Your task to perform on an android device: Open settings on Google Maps Image 0: 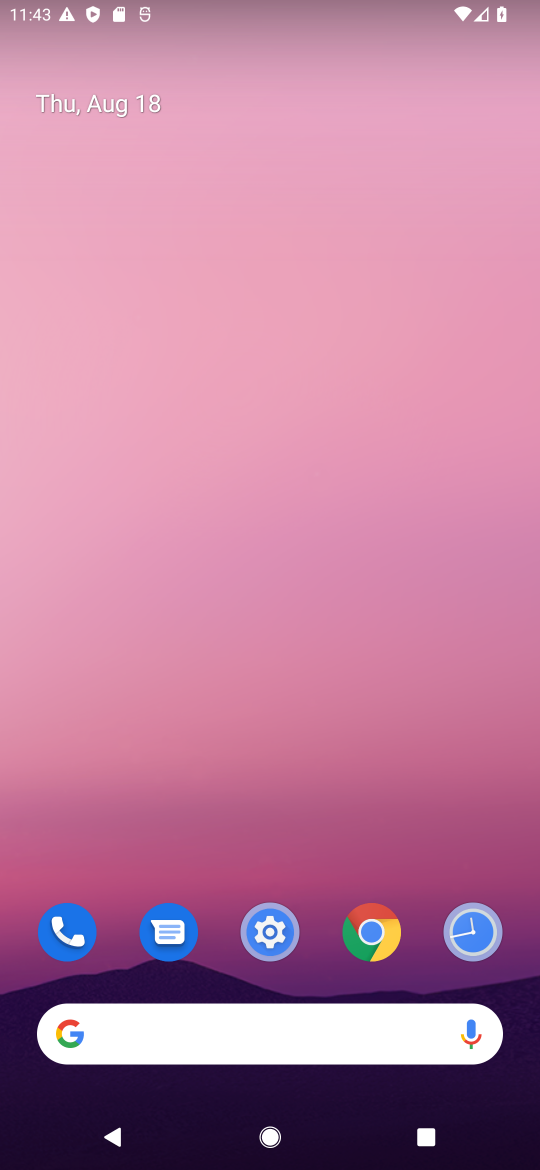
Step 0: drag from (215, 987) to (314, 112)
Your task to perform on an android device: Open settings on Google Maps Image 1: 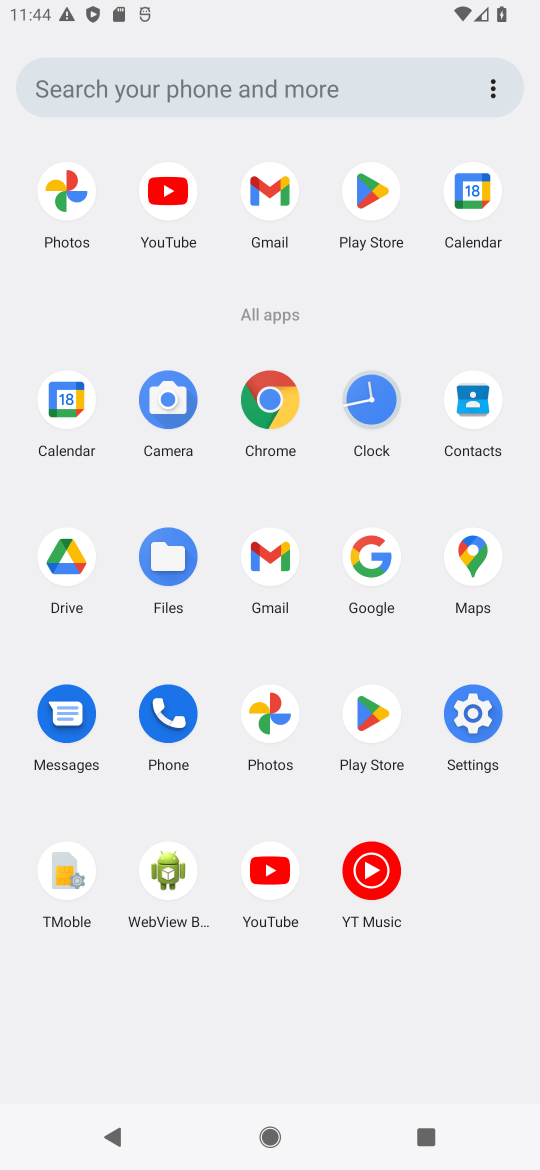
Step 1: click (472, 548)
Your task to perform on an android device: Open settings on Google Maps Image 2: 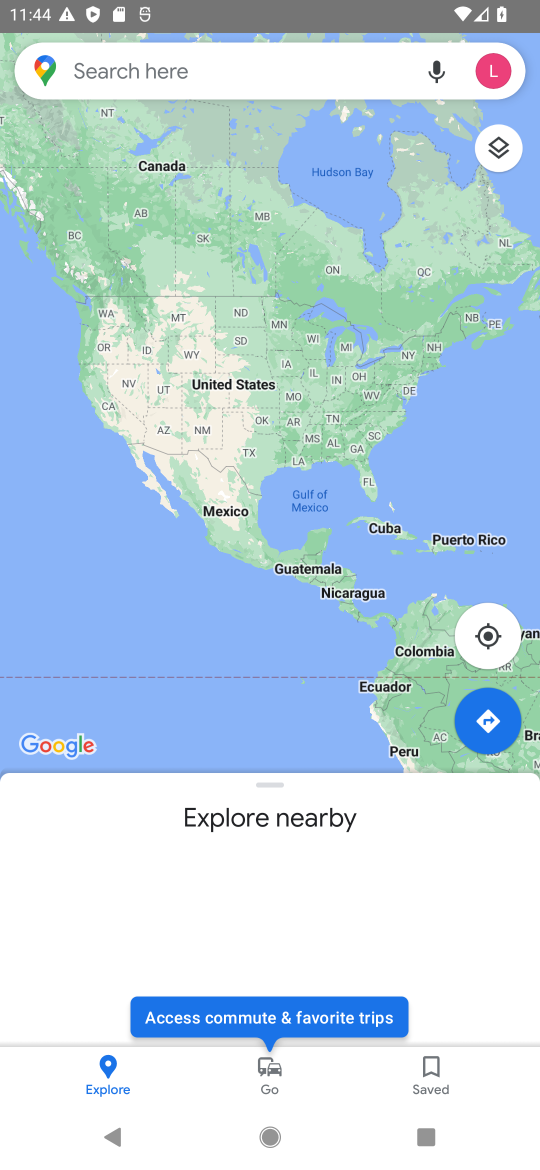
Step 2: click (482, 68)
Your task to perform on an android device: Open settings on Google Maps Image 3: 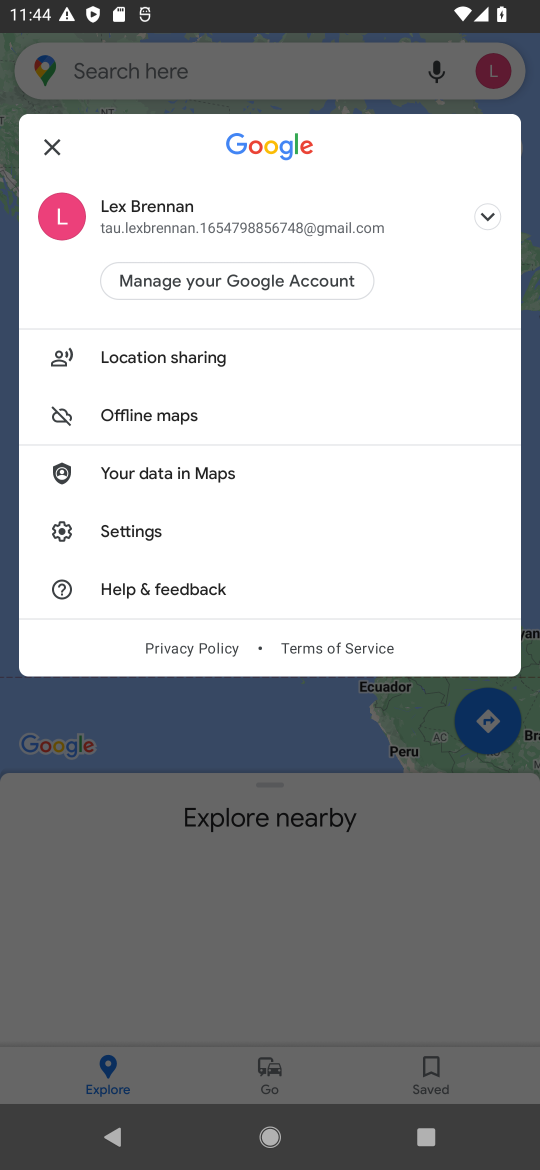
Step 3: click (131, 527)
Your task to perform on an android device: Open settings on Google Maps Image 4: 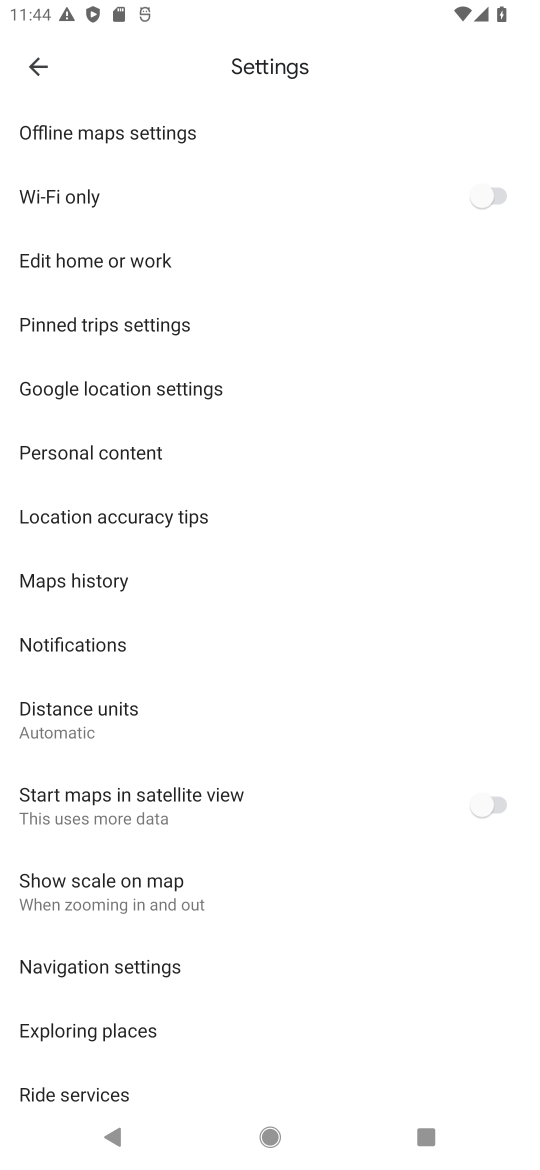
Step 4: task complete